Your task to perform on an android device: Search for custom wallets on Etsy. Image 0: 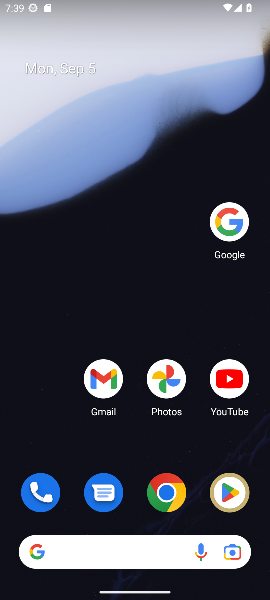
Step 0: click (237, 222)
Your task to perform on an android device: Search for custom wallets on Etsy. Image 1: 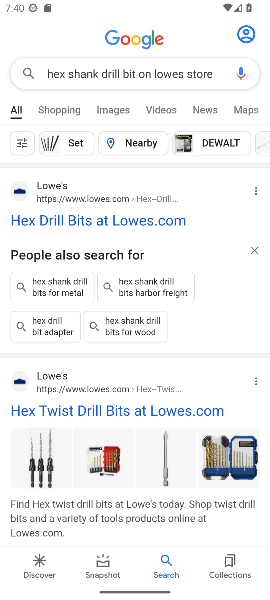
Step 1: click (130, 64)
Your task to perform on an android device: Search for custom wallets on Etsy. Image 2: 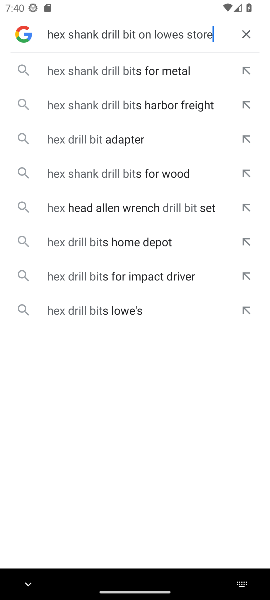
Step 2: click (243, 35)
Your task to perform on an android device: Search for custom wallets on Etsy. Image 3: 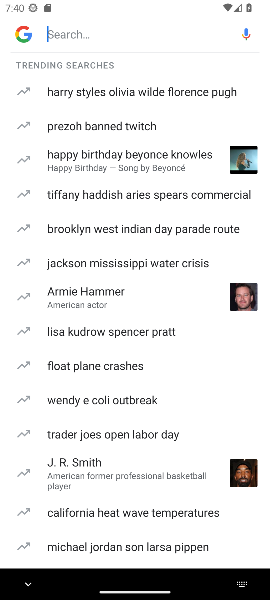
Step 3: click (104, 32)
Your task to perform on an android device: Search for custom wallets on Etsy. Image 4: 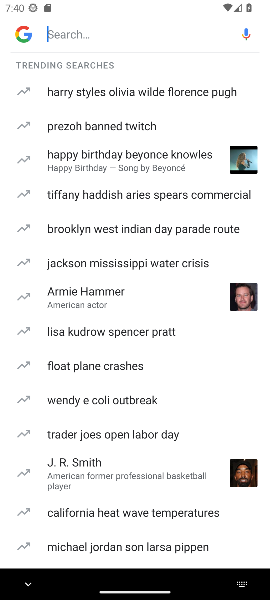
Step 4: type "custom wallets on Etsy "
Your task to perform on an android device: Search for custom wallets on Etsy. Image 5: 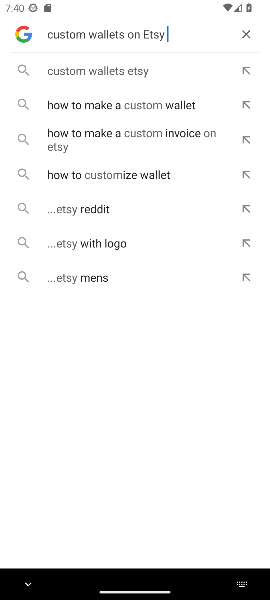
Step 5: click (100, 73)
Your task to perform on an android device: Search for custom wallets on Etsy. Image 6: 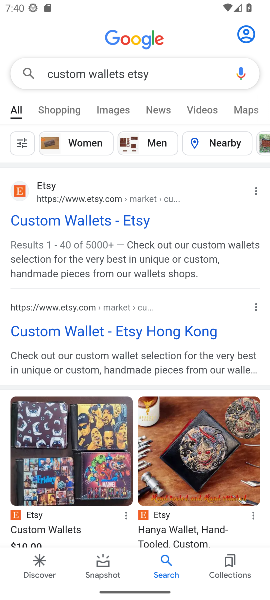
Step 6: click (95, 218)
Your task to perform on an android device: Search for custom wallets on Etsy. Image 7: 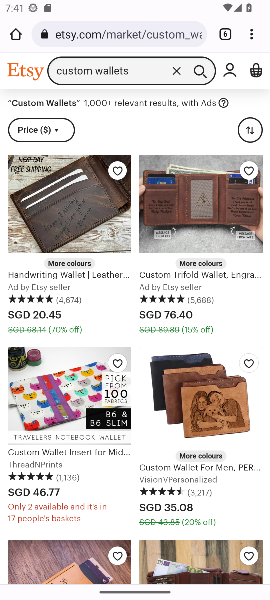
Step 7: task complete